Your task to perform on an android device: Open calendar and show me the first week of next month Image 0: 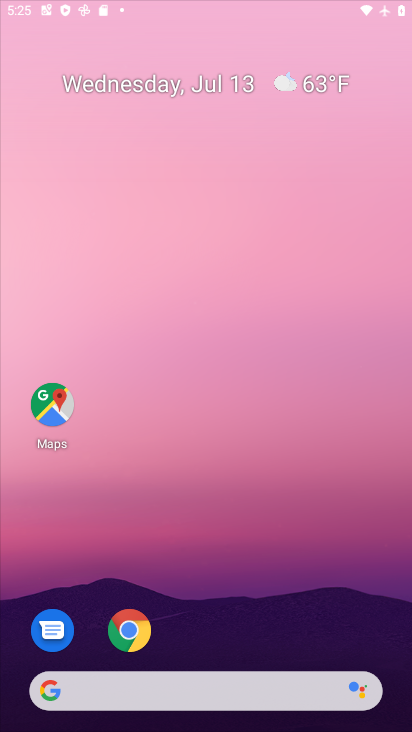
Step 0: press home button
Your task to perform on an android device: Open calendar and show me the first week of next month Image 1: 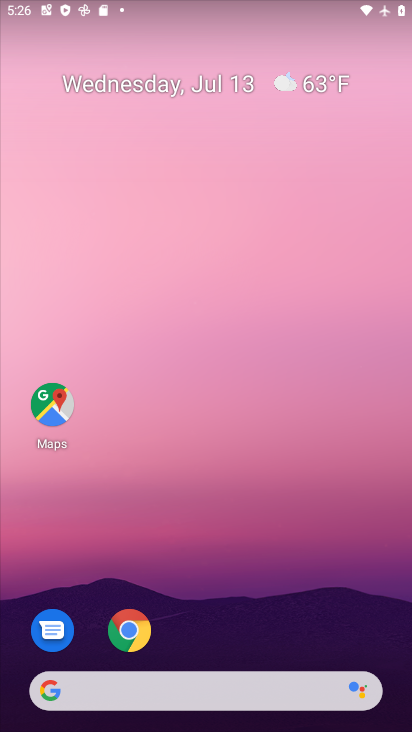
Step 1: drag from (212, 642) to (217, 81)
Your task to perform on an android device: Open calendar and show me the first week of next month Image 2: 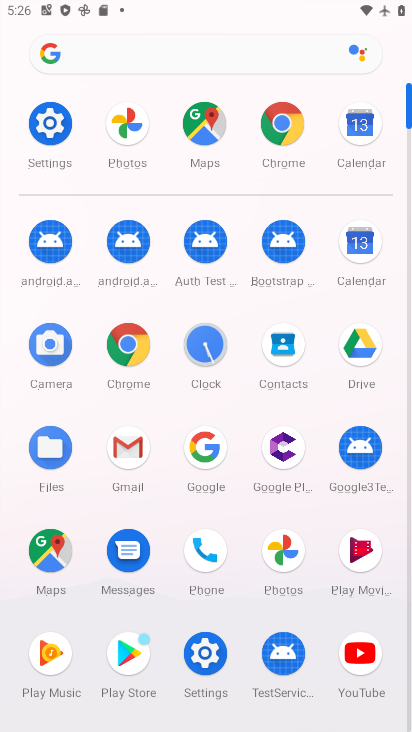
Step 2: click (351, 239)
Your task to perform on an android device: Open calendar and show me the first week of next month Image 3: 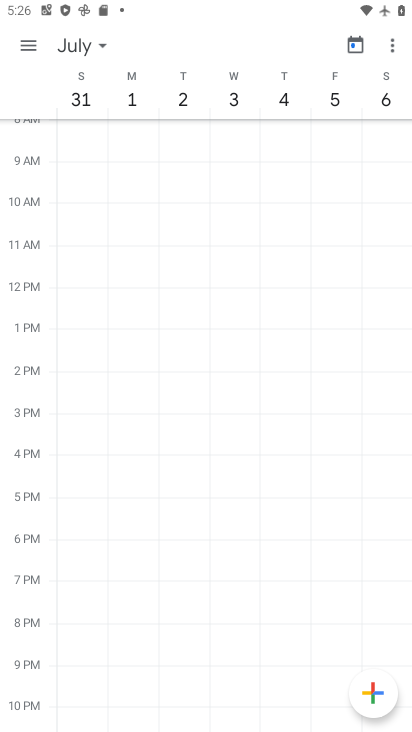
Step 3: task complete